Your task to perform on an android device: Search for vegetarian restaurants on Maps Image 0: 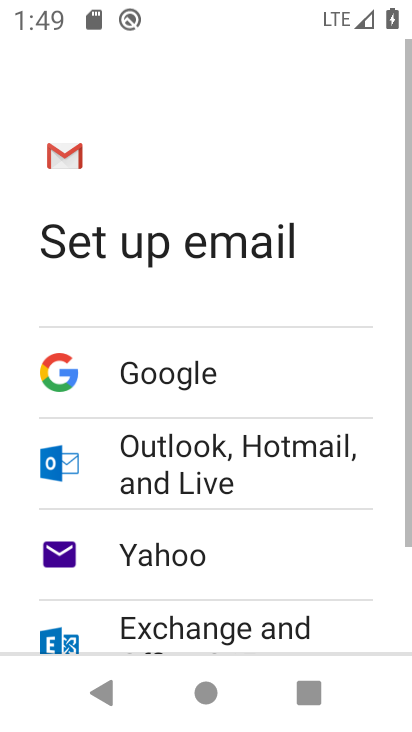
Step 0: press home button
Your task to perform on an android device: Search for vegetarian restaurants on Maps Image 1: 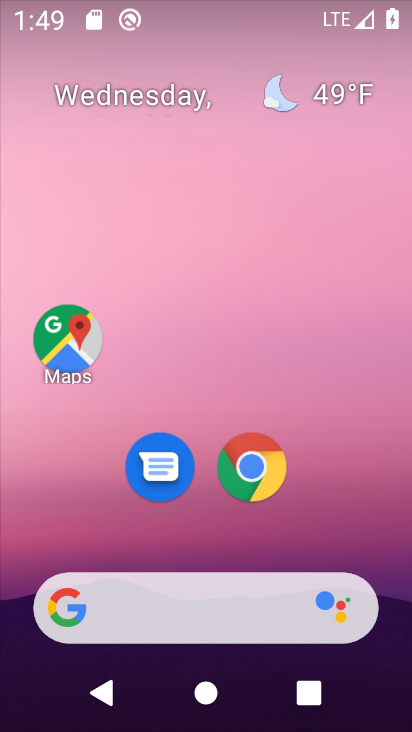
Step 1: click (66, 336)
Your task to perform on an android device: Search for vegetarian restaurants on Maps Image 2: 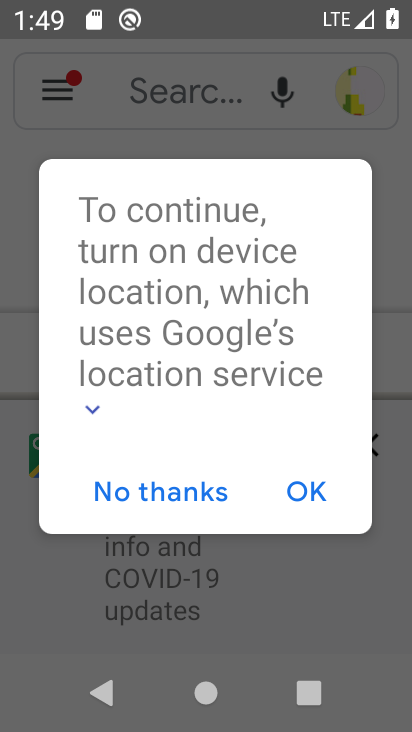
Step 2: click (152, 82)
Your task to perform on an android device: Search for vegetarian restaurants on Maps Image 3: 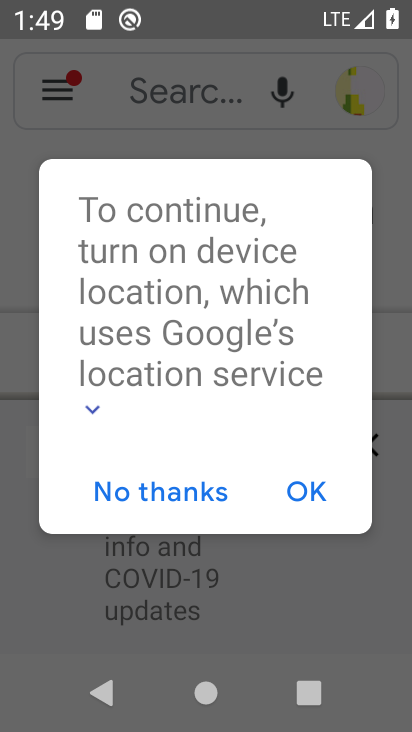
Step 3: click (308, 487)
Your task to perform on an android device: Search for vegetarian restaurants on Maps Image 4: 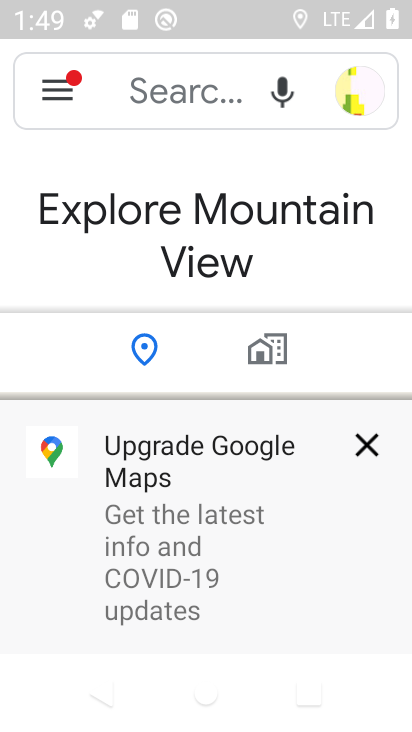
Step 4: click (165, 100)
Your task to perform on an android device: Search for vegetarian restaurants on Maps Image 5: 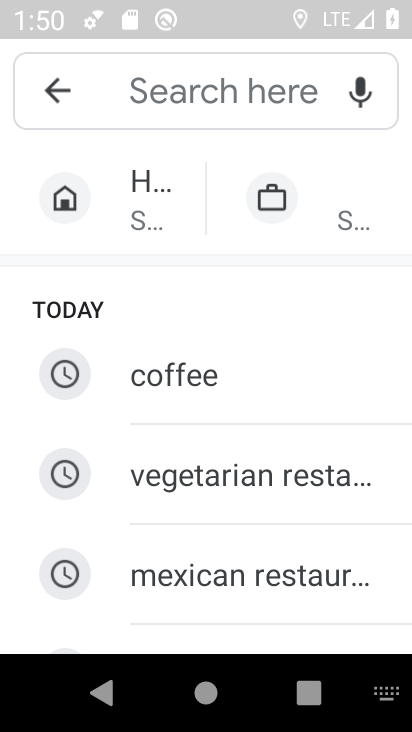
Step 5: type "vegetarian restaurants"
Your task to perform on an android device: Search for vegetarian restaurants on Maps Image 6: 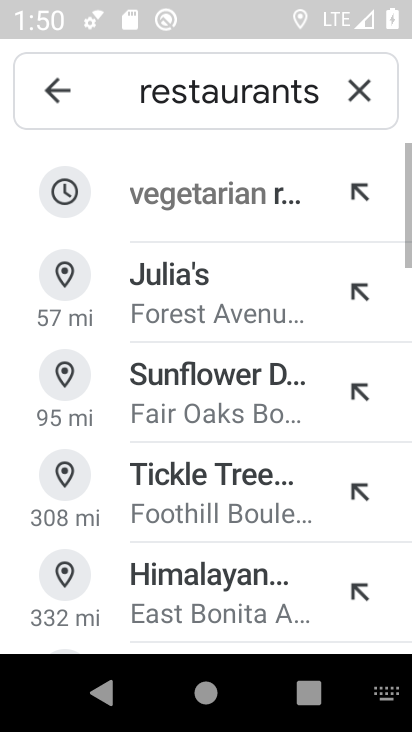
Step 6: click (184, 204)
Your task to perform on an android device: Search for vegetarian restaurants on Maps Image 7: 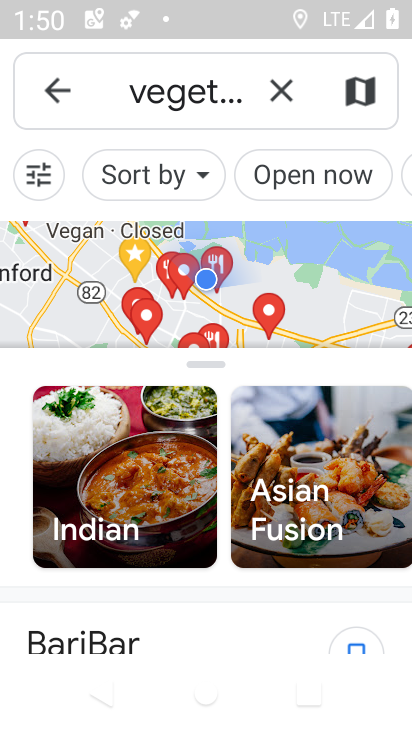
Step 7: task complete